Your task to perform on an android device: change the upload size in google photos Image 0: 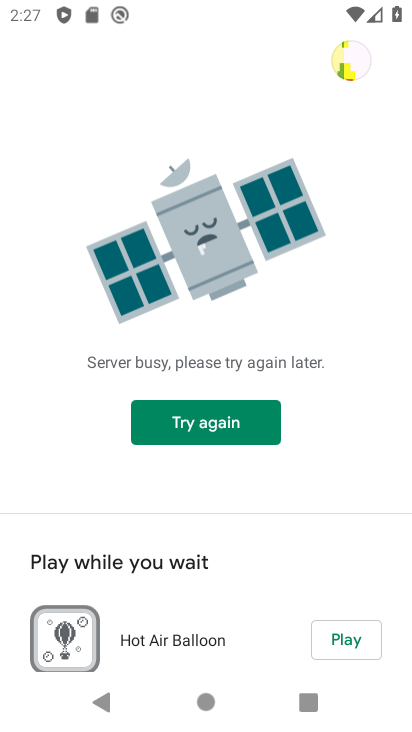
Step 0: press home button
Your task to perform on an android device: change the upload size in google photos Image 1: 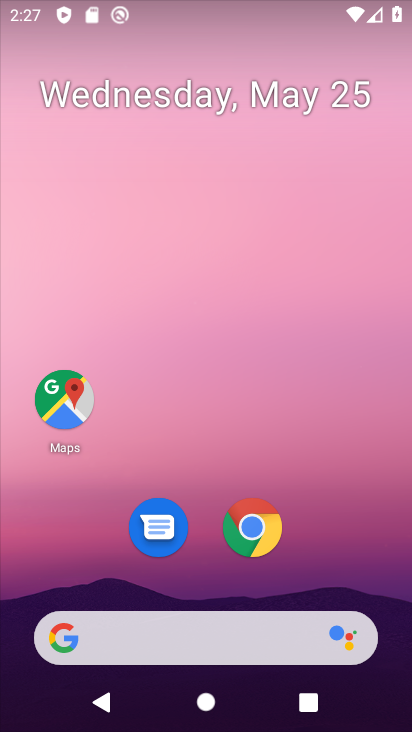
Step 1: drag from (179, 596) to (219, 48)
Your task to perform on an android device: change the upload size in google photos Image 2: 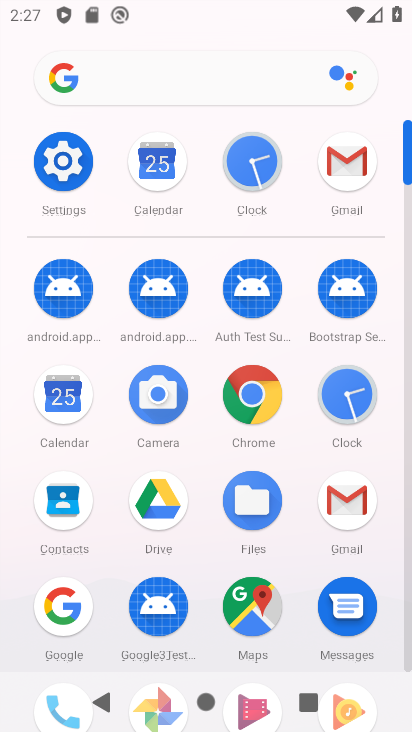
Step 2: drag from (193, 636) to (230, 167)
Your task to perform on an android device: change the upload size in google photos Image 3: 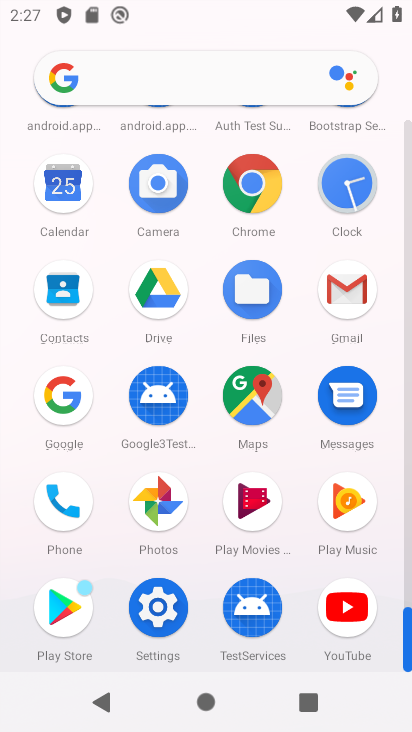
Step 3: click (163, 497)
Your task to perform on an android device: change the upload size in google photos Image 4: 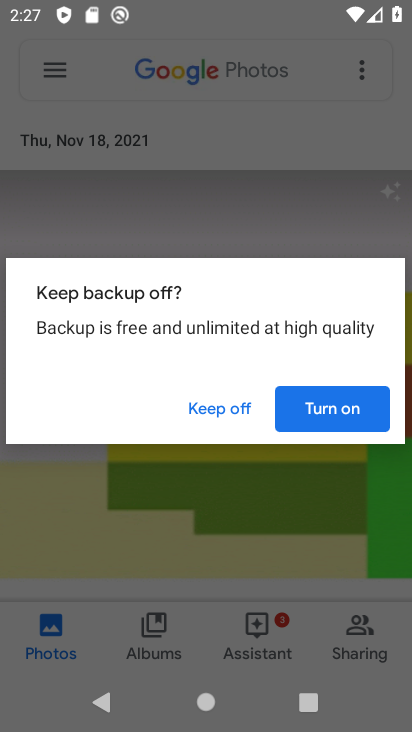
Step 4: click (326, 400)
Your task to perform on an android device: change the upload size in google photos Image 5: 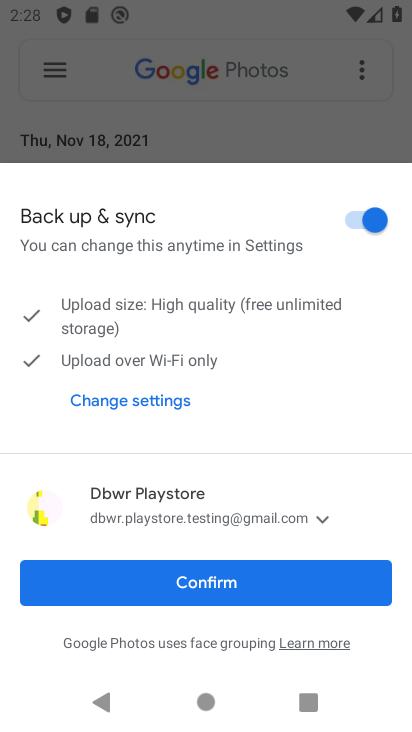
Step 5: click (191, 592)
Your task to perform on an android device: change the upload size in google photos Image 6: 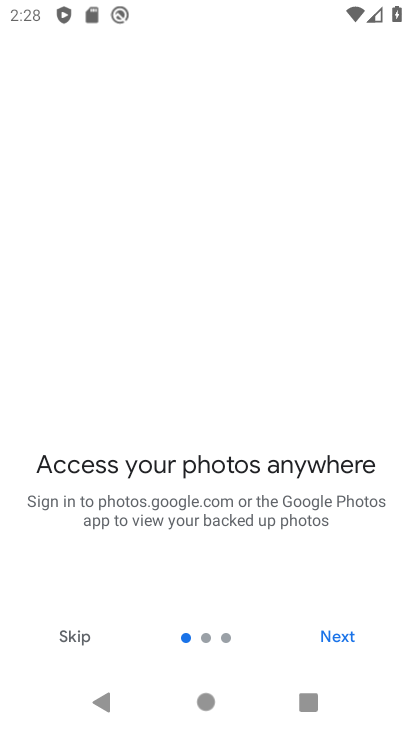
Step 6: click (334, 643)
Your task to perform on an android device: change the upload size in google photos Image 7: 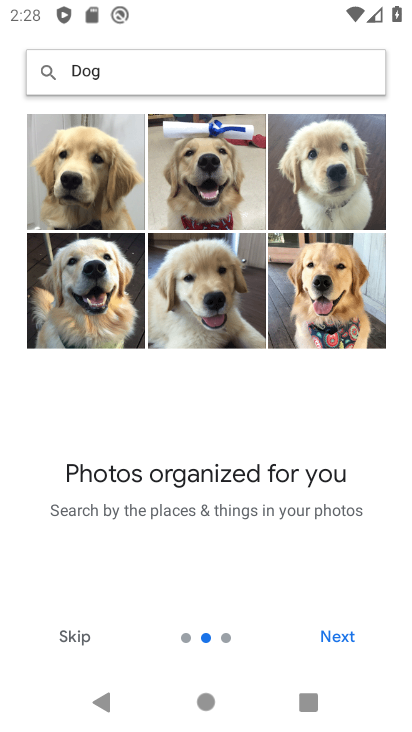
Step 7: click (325, 633)
Your task to perform on an android device: change the upload size in google photos Image 8: 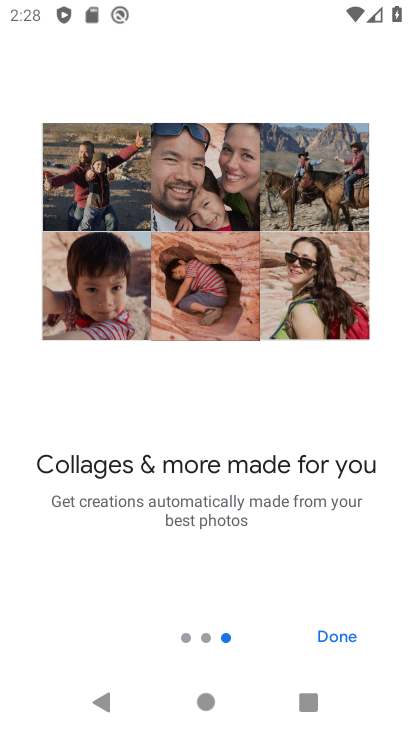
Step 8: click (325, 633)
Your task to perform on an android device: change the upload size in google photos Image 9: 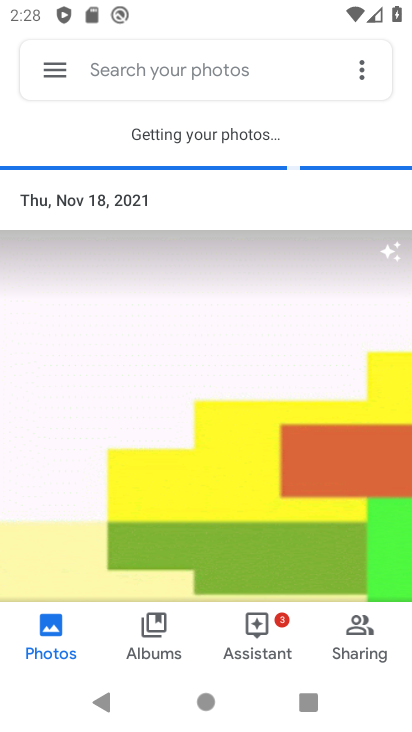
Step 9: click (63, 64)
Your task to perform on an android device: change the upload size in google photos Image 10: 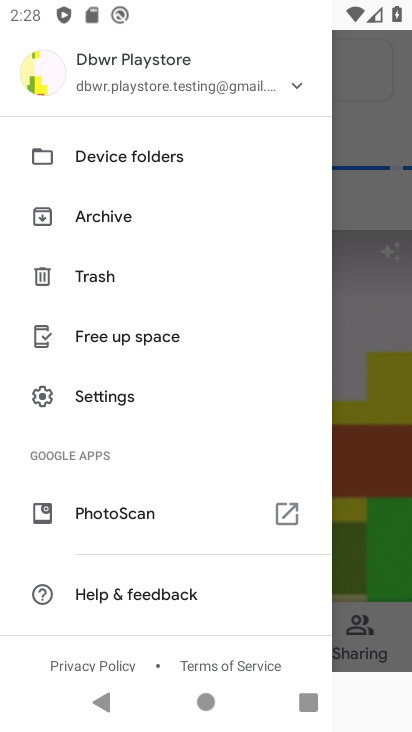
Step 10: click (104, 399)
Your task to perform on an android device: change the upload size in google photos Image 11: 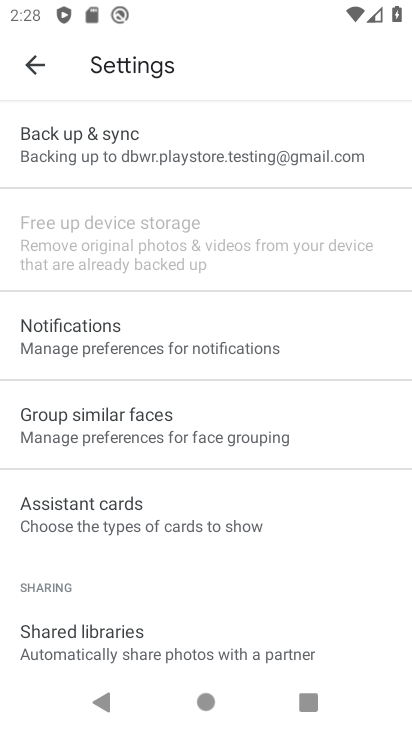
Step 11: click (156, 130)
Your task to perform on an android device: change the upload size in google photos Image 12: 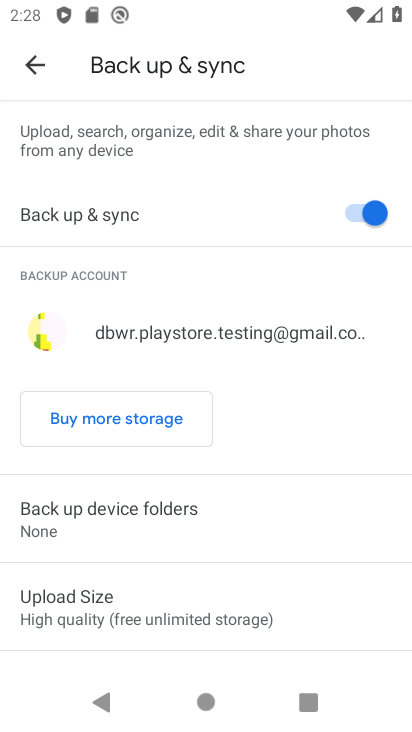
Step 12: click (118, 576)
Your task to perform on an android device: change the upload size in google photos Image 13: 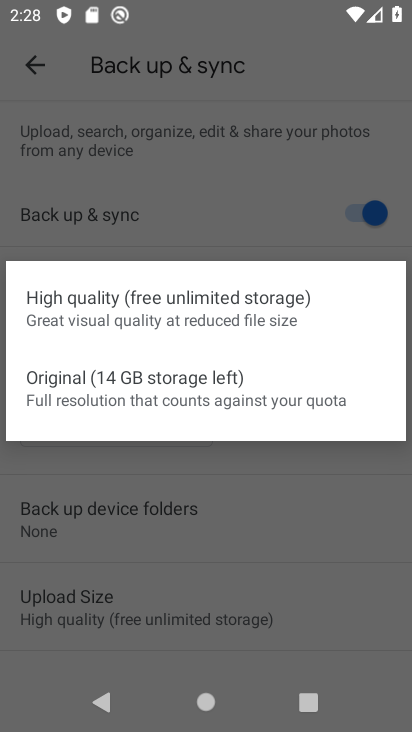
Step 13: click (81, 424)
Your task to perform on an android device: change the upload size in google photos Image 14: 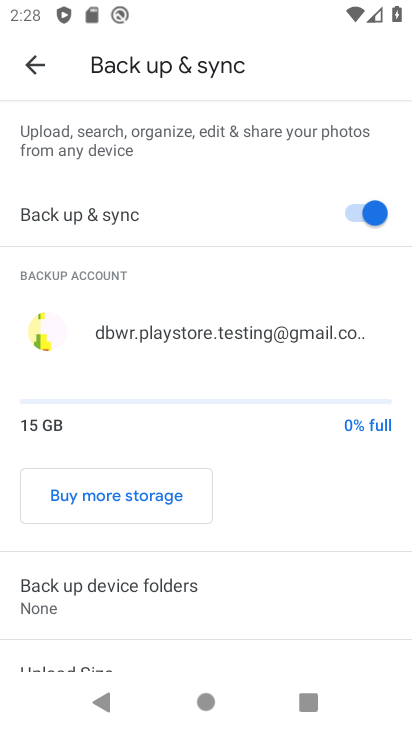
Step 14: task complete